Your task to perform on an android device: turn pop-ups on in chrome Image 0: 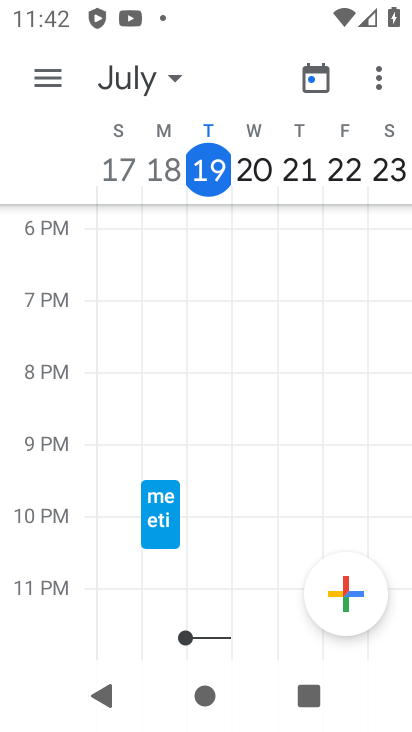
Step 0: press home button
Your task to perform on an android device: turn pop-ups on in chrome Image 1: 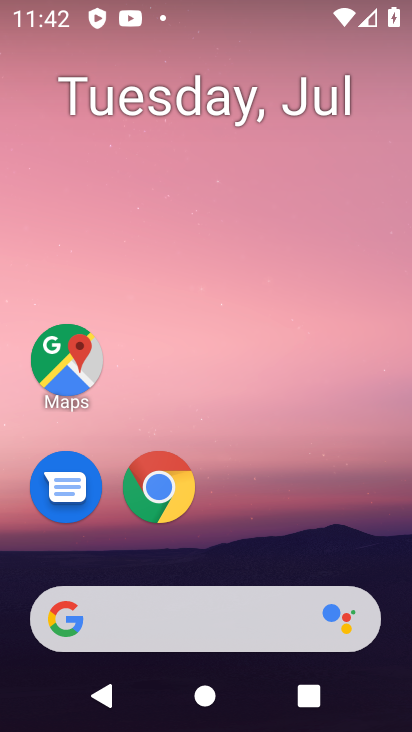
Step 1: drag from (309, 555) to (264, 118)
Your task to perform on an android device: turn pop-ups on in chrome Image 2: 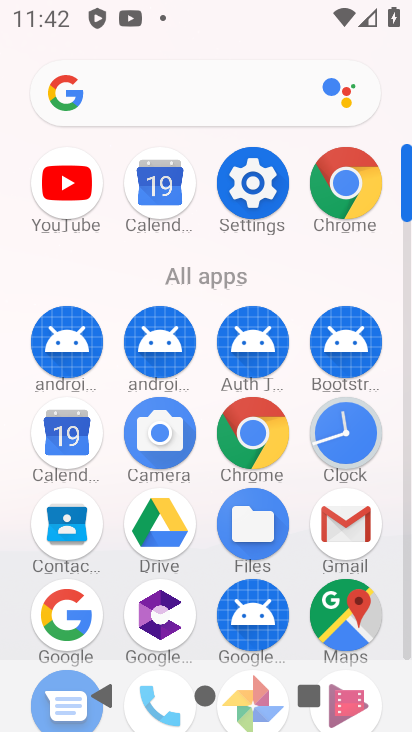
Step 2: click (342, 182)
Your task to perform on an android device: turn pop-ups on in chrome Image 3: 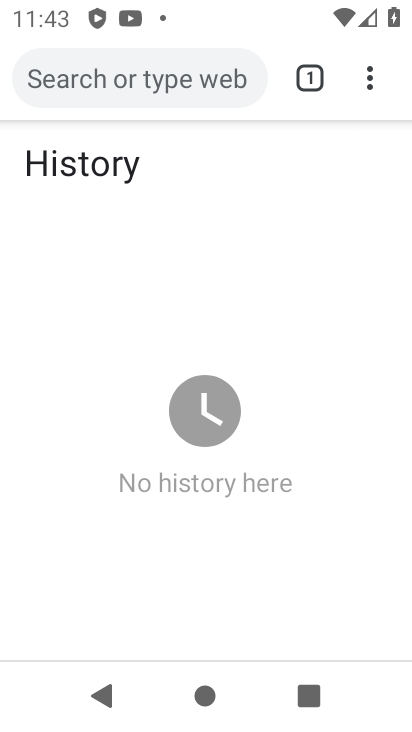
Step 3: click (379, 87)
Your task to perform on an android device: turn pop-ups on in chrome Image 4: 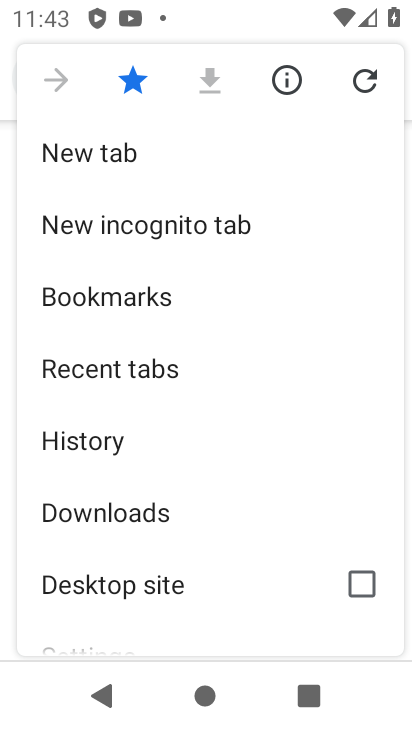
Step 4: drag from (183, 554) to (158, 285)
Your task to perform on an android device: turn pop-ups on in chrome Image 5: 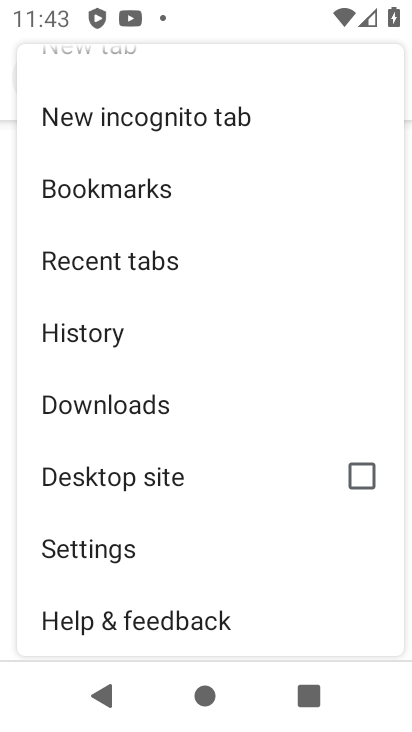
Step 5: click (148, 548)
Your task to perform on an android device: turn pop-ups on in chrome Image 6: 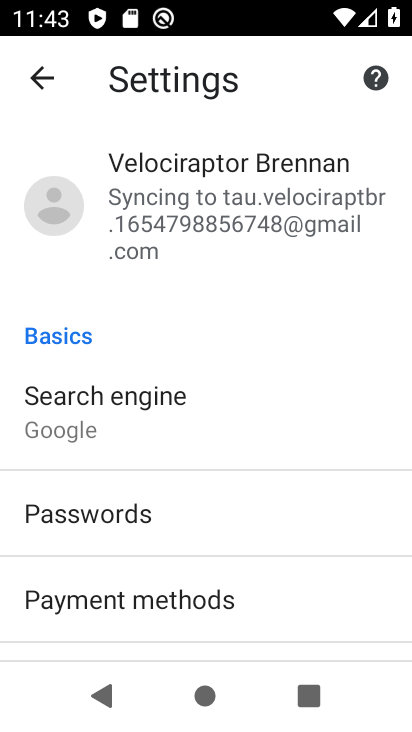
Step 6: drag from (231, 537) to (192, 228)
Your task to perform on an android device: turn pop-ups on in chrome Image 7: 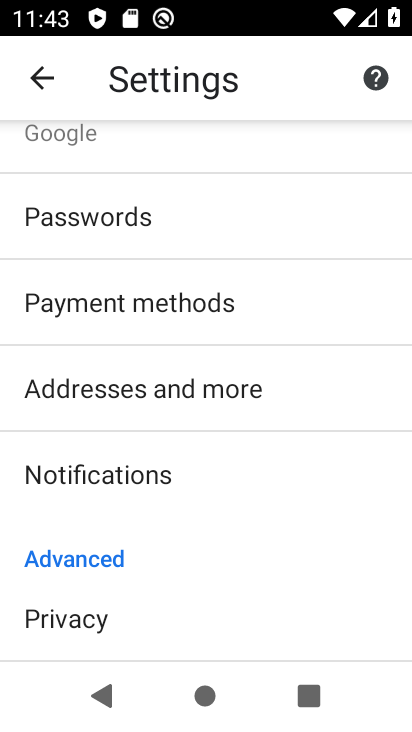
Step 7: drag from (206, 572) to (176, 190)
Your task to perform on an android device: turn pop-ups on in chrome Image 8: 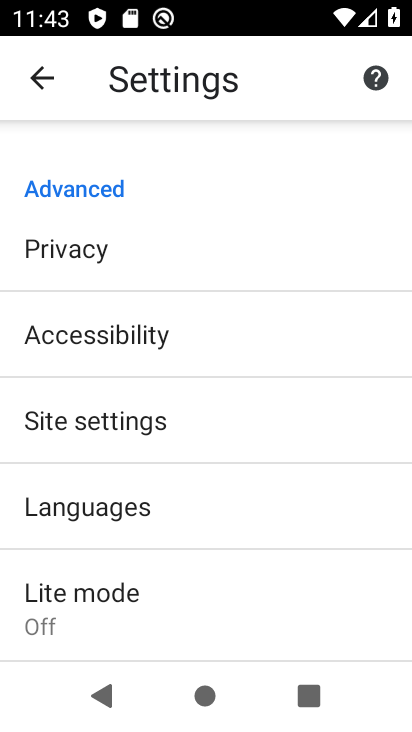
Step 8: click (195, 417)
Your task to perform on an android device: turn pop-ups on in chrome Image 9: 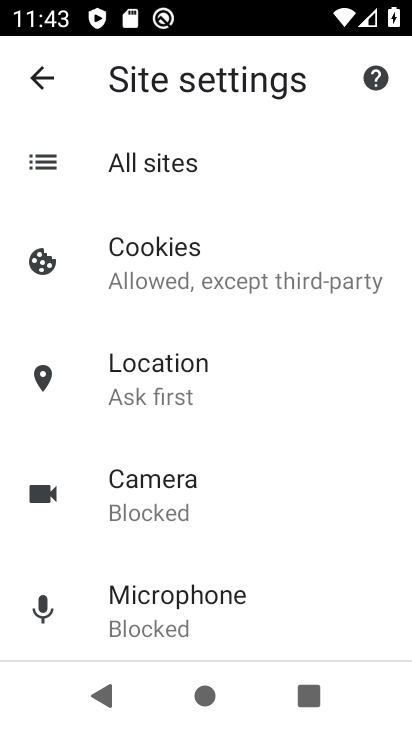
Step 9: drag from (261, 556) to (266, 273)
Your task to perform on an android device: turn pop-ups on in chrome Image 10: 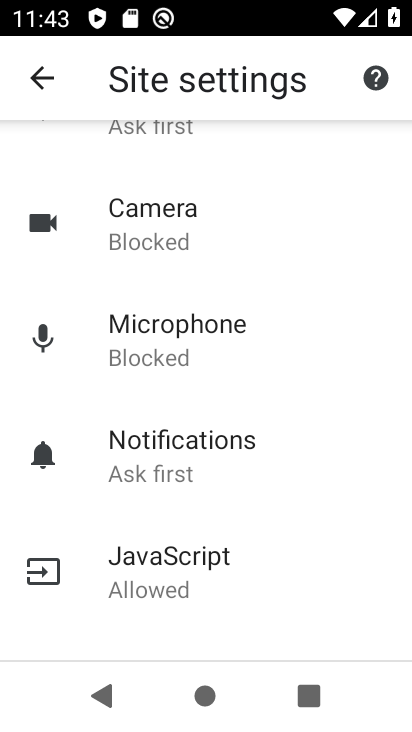
Step 10: drag from (261, 610) to (245, 308)
Your task to perform on an android device: turn pop-ups on in chrome Image 11: 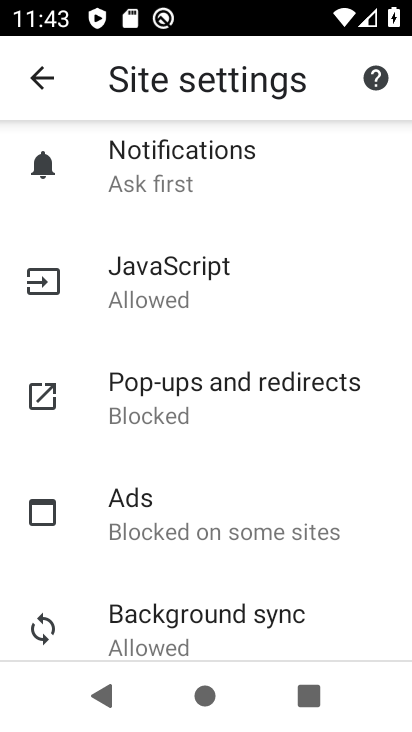
Step 11: click (269, 388)
Your task to perform on an android device: turn pop-ups on in chrome Image 12: 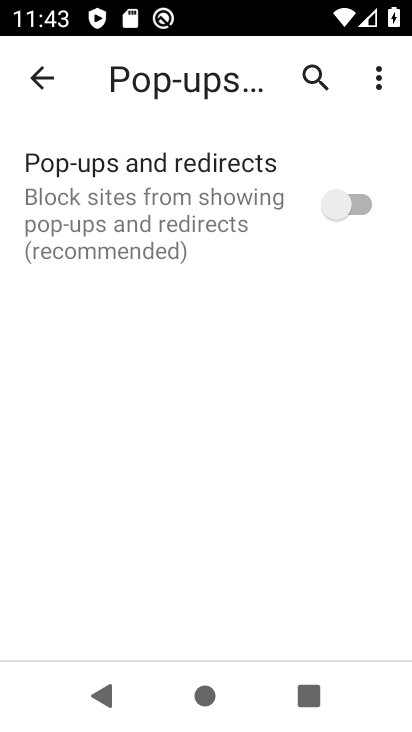
Step 12: click (347, 219)
Your task to perform on an android device: turn pop-ups on in chrome Image 13: 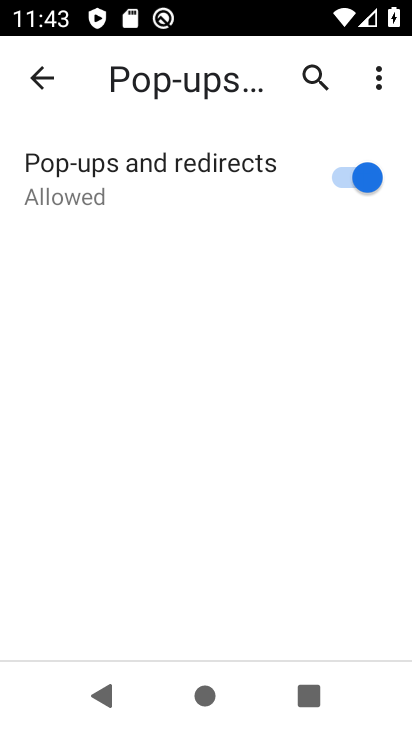
Step 13: task complete